Your task to perform on an android device: Open Amazon Image 0: 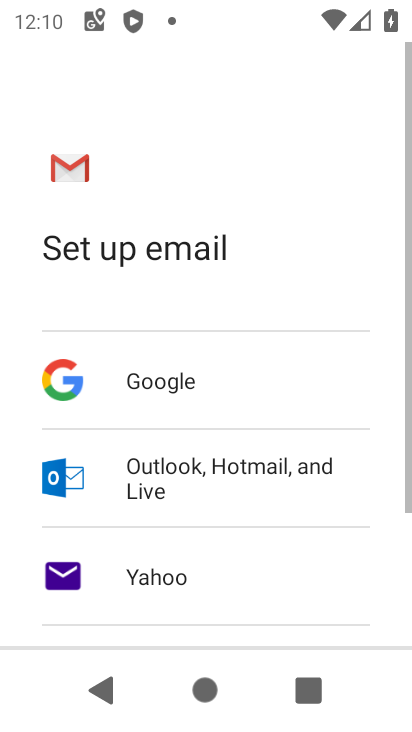
Step 0: press home button
Your task to perform on an android device: Open Amazon Image 1: 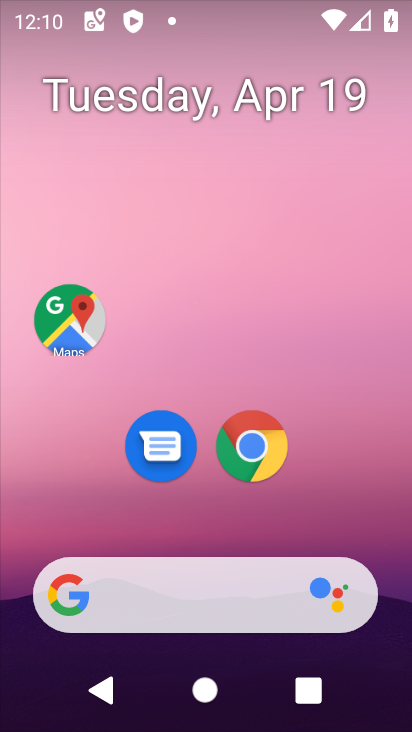
Step 1: click (244, 444)
Your task to perform on an android device: Open Amazon Image 2: 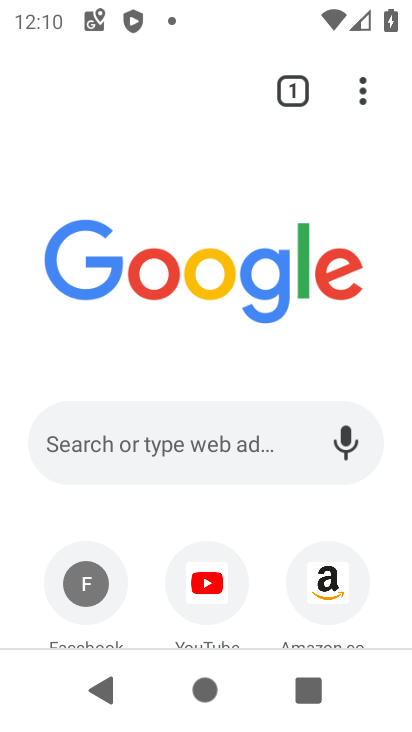
Step 2: click (331, 571)
Your task to perform on an android device: Open Amazon Image 3: 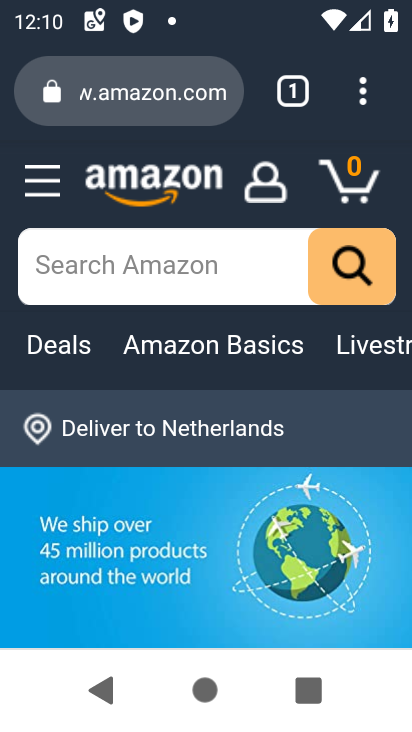
Step 3: task complete